Your task to perform on an android device: Open notification settings Image 0: 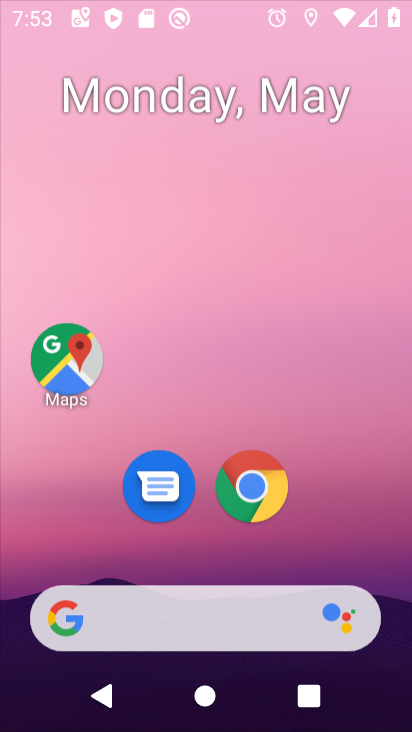
Step 0: press home button
Your task to perform on an android device: Open notification settings Image 1: 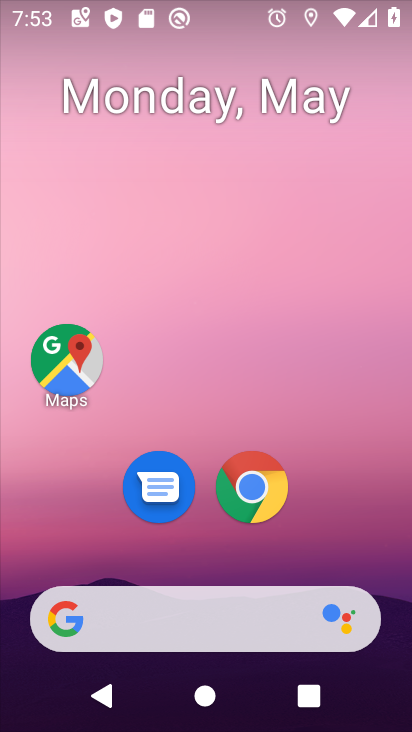
Step 1: drag from (315, 564) to (232, 69)
Your task to perform on an android device: Open notification settings Image 2: 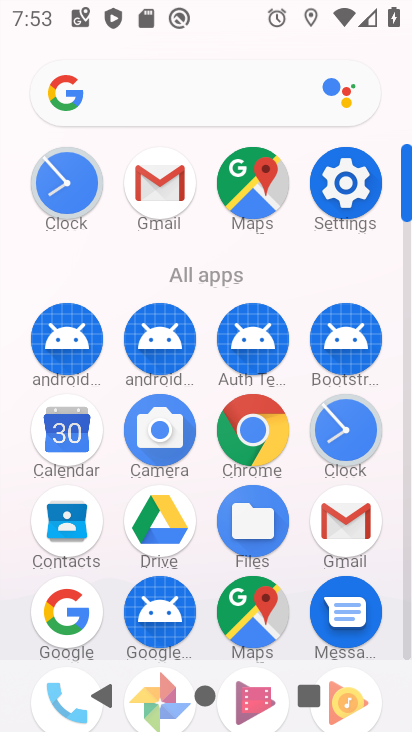
Step 2: click (347, 182)
Your task to perform on an android device: Open notification settings Image 3: 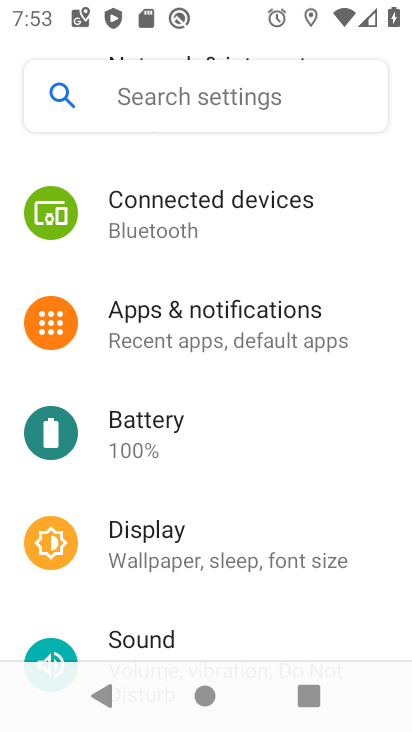
Step 3: click (206, 320)
Your task to perform on an android device: Open notification settings Image 4: 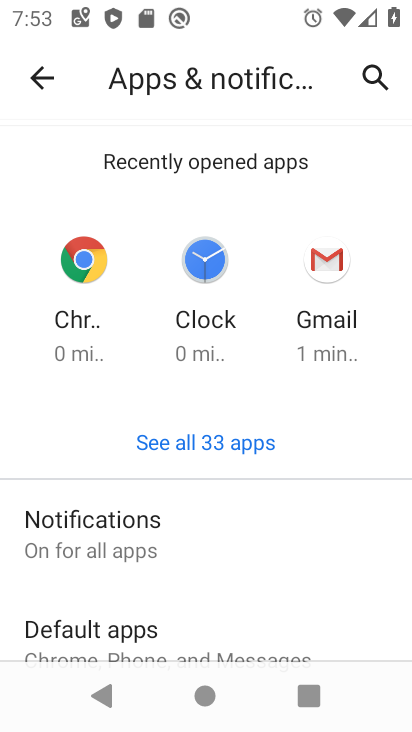
Step 4: click (94, 520)
Your task to perform on an android device: Open notification settings Image 5: 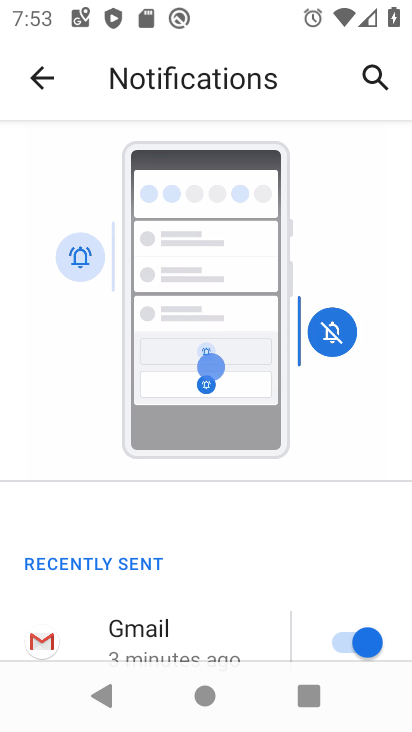
Step 5: task complete